Your task to perform on an android device: Open Google Chrome Image 0: 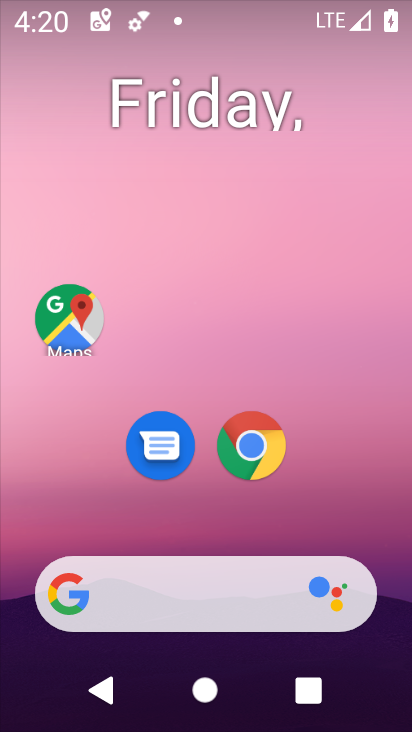
Step 0: click (259, 456)
Your task to perform on an android device: Open Google Chrome Image 1: 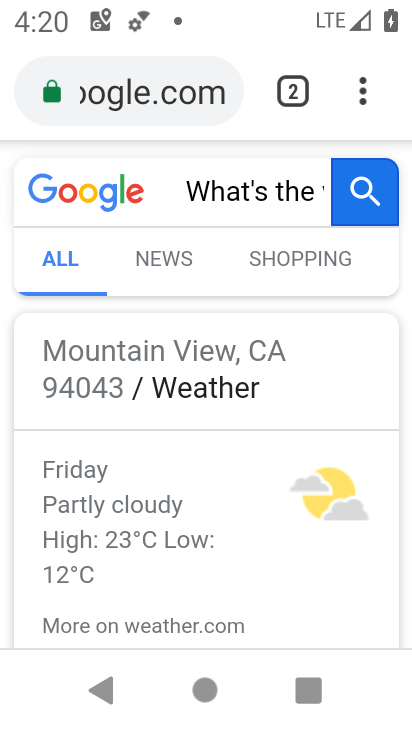
Step 1: task complete